Your task to perform on an android device: Search for the best Mexican restaurants Image 0: 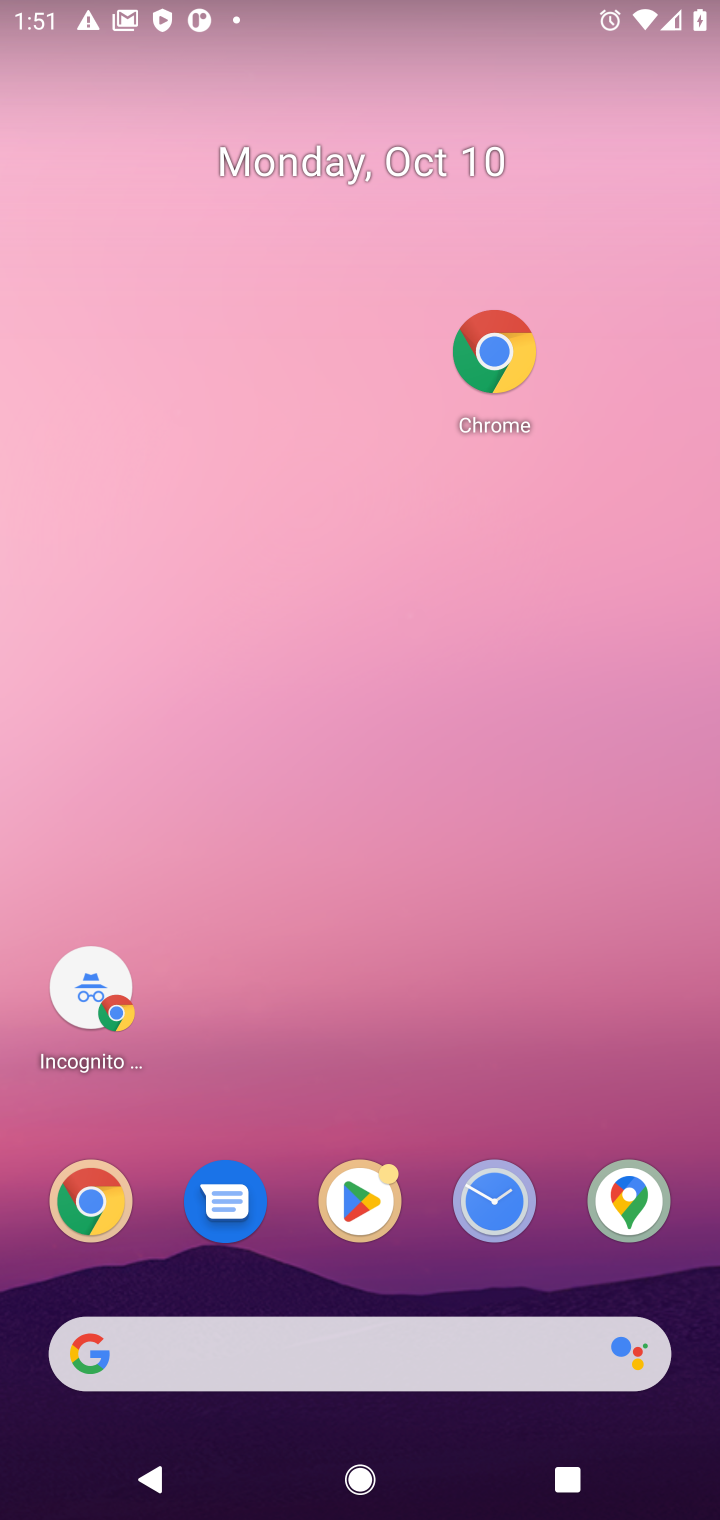
Step 0: click (487, 343)
Your task to perform on an android device: Search for the best Mexican restaurants Image 1: 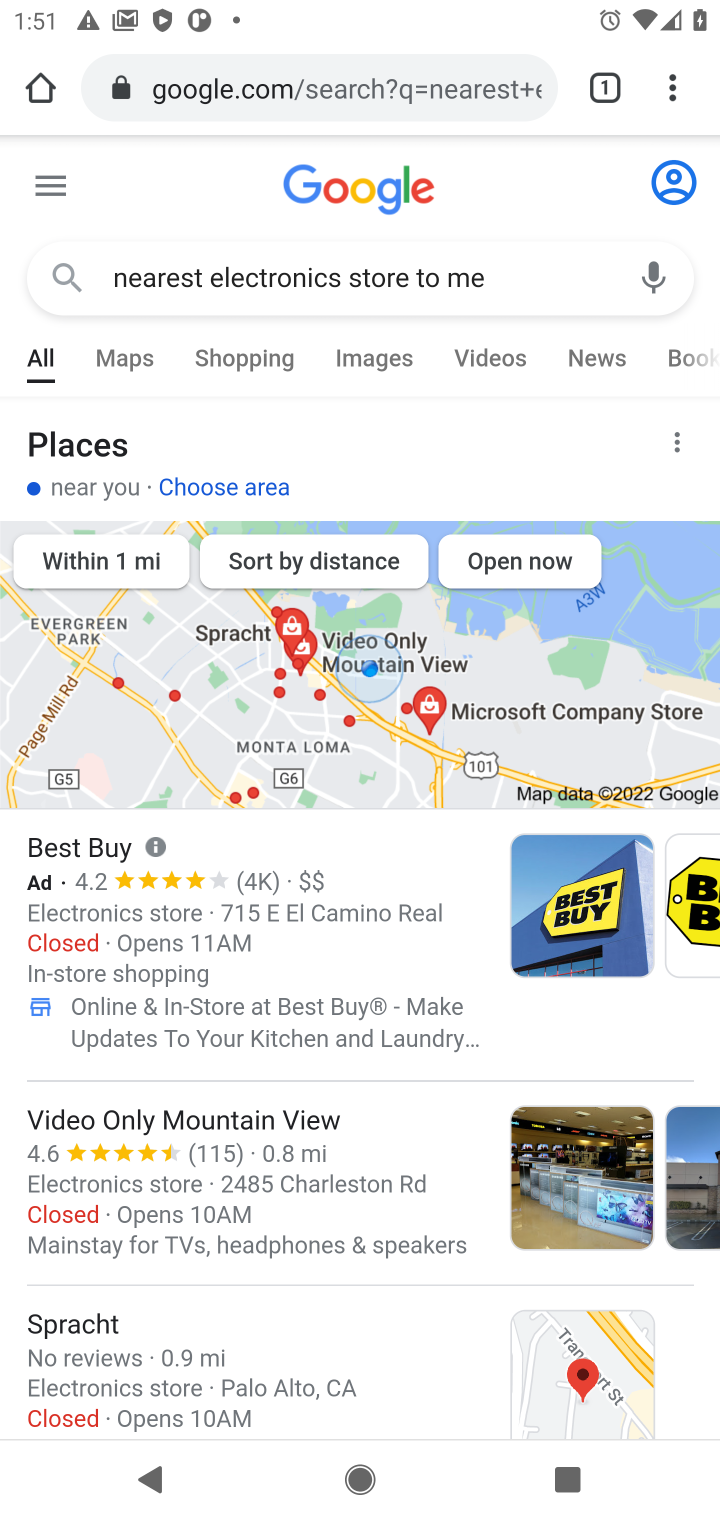
Step 1: click (552, 281)
Your task to perform on an android device: Search for the best Mexican restaurants Image 2: 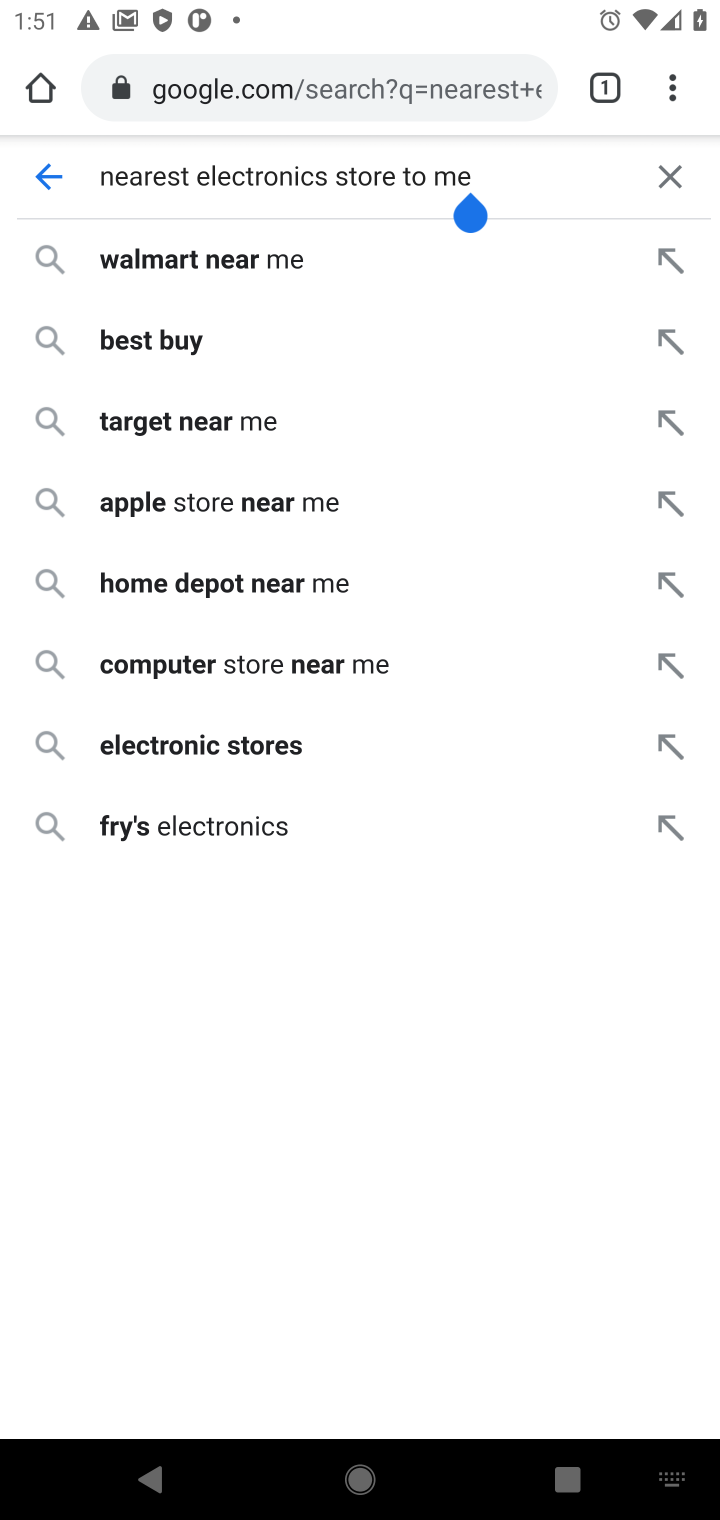
Step 2: click (678, 173)
Your task to perform on an android device: Search for the best Mexican restaurants Image 3: 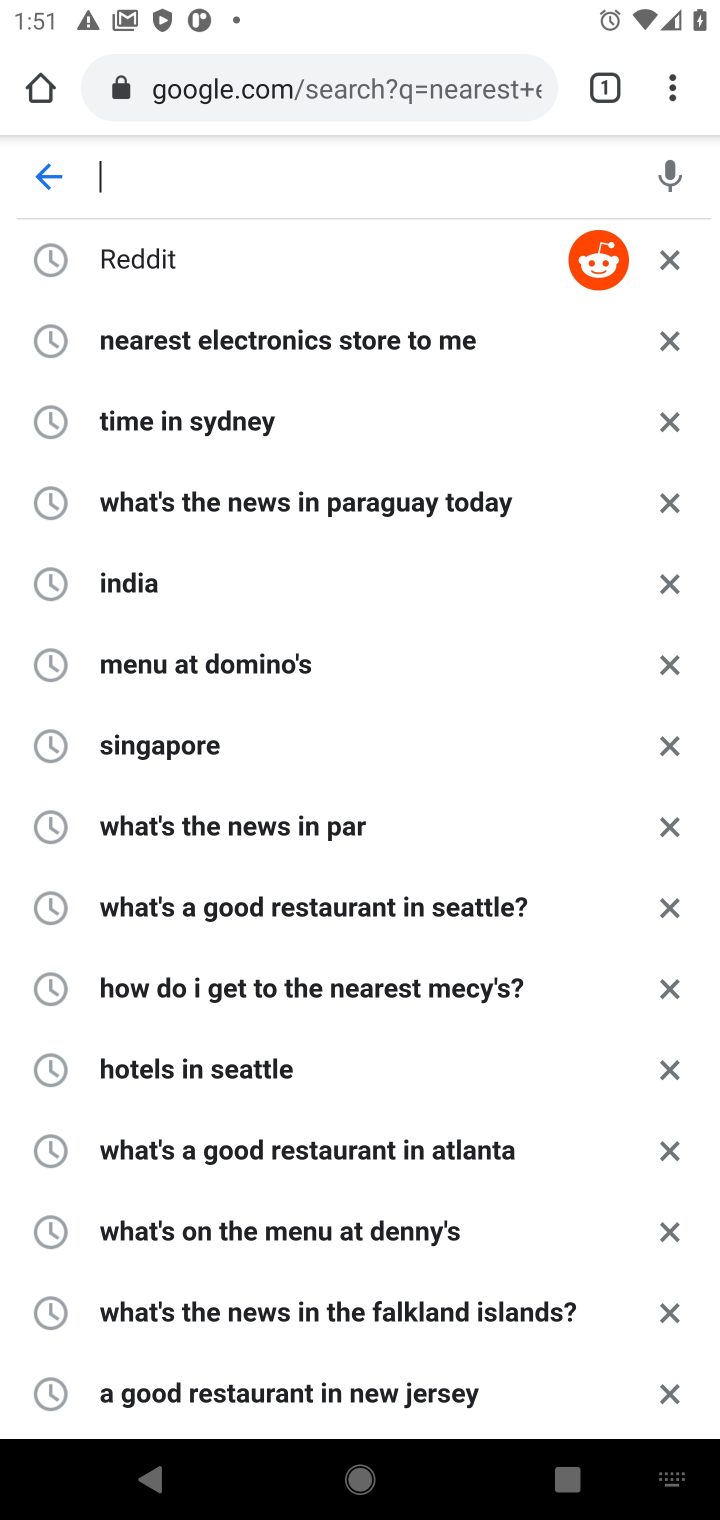
Step 3: type "the best Mexican restaurants"
Your task to perform on an android device: Search for the best Mexican restaurants Image 4: 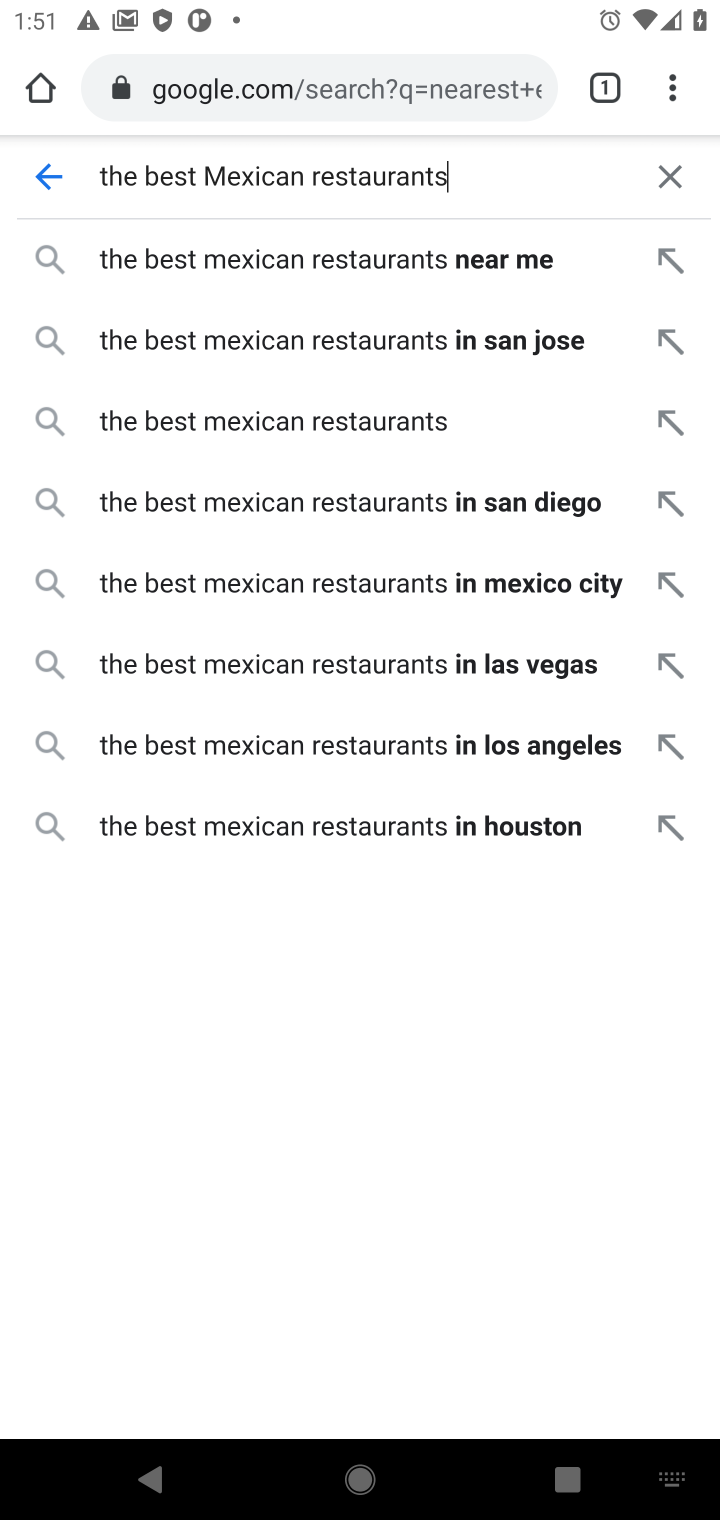
Step 4: click (308, 421)
Your task to perform on an android device: Search for the best Mexican restaurants Image 5: 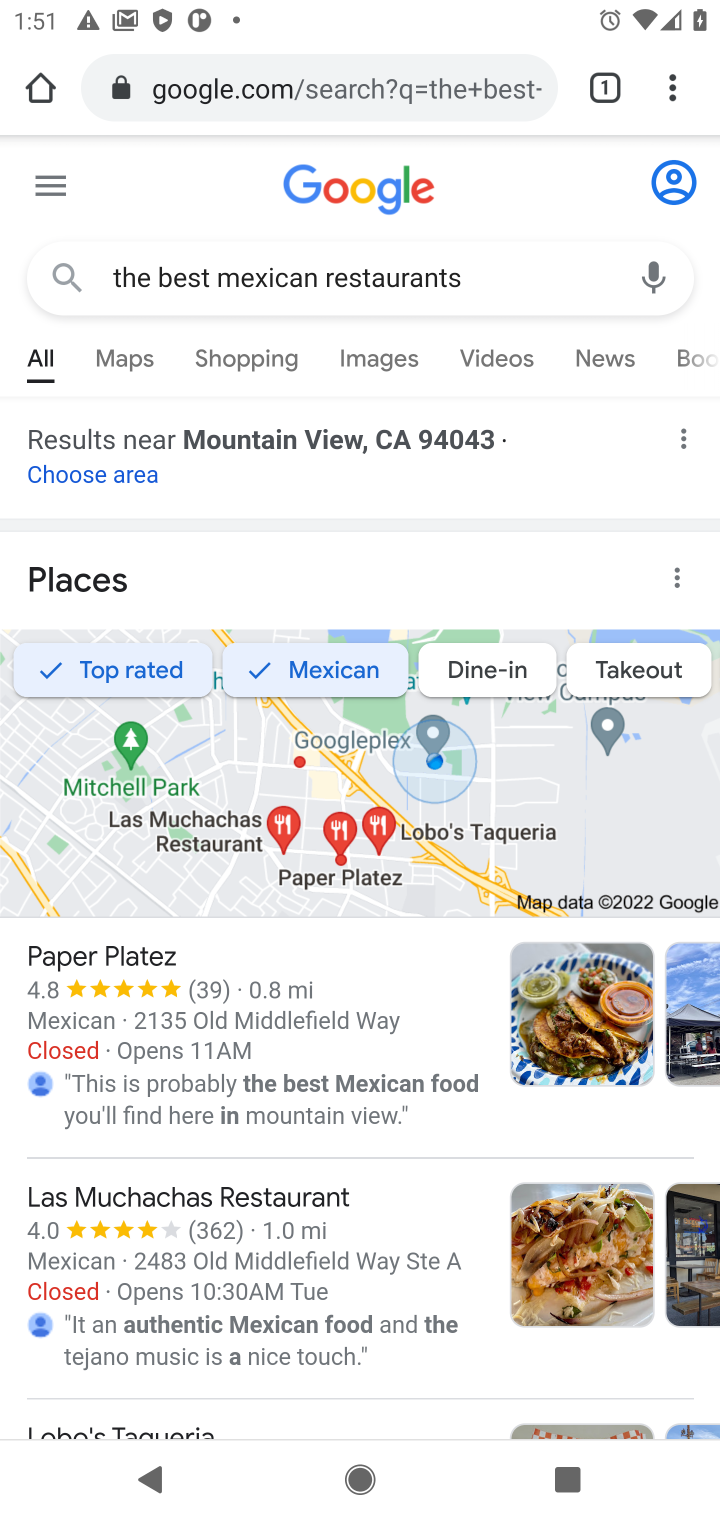
Step 5: task complete